Your task to perform on an android device: Open Google Chrome and click the shortcut for Amazon.com Image 0: 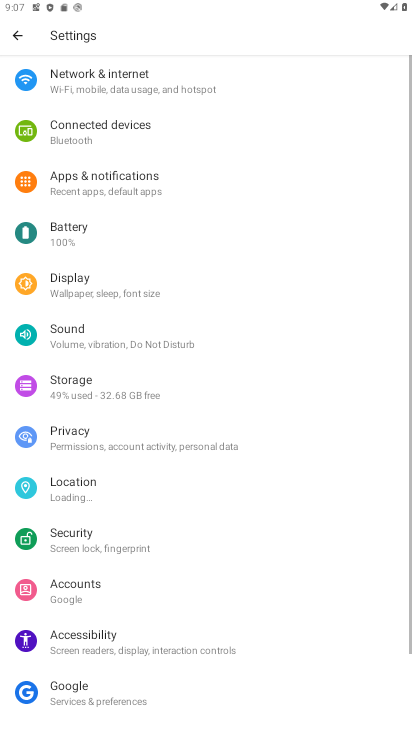
Step 0: press home button
Your task to perform on an android device: Open Google Chrome and click the shortcut for Amazon.com Image 1: 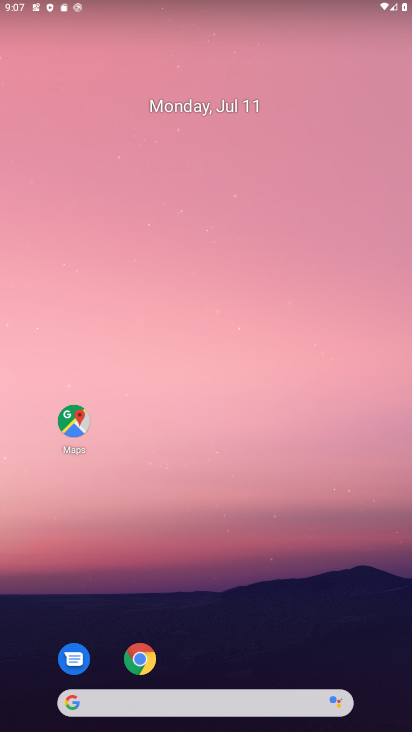
Step 1: click (139, 662)
Your task to perform on an android device: Open Google Chrome and click the shortcut for Amazon.com Image 2: 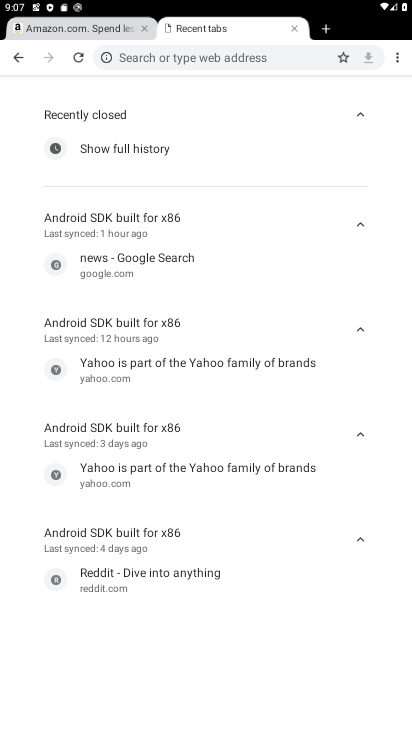
Step 2: click (400, 61)
Your task to perform on an android device: Open Google Chrome and click the shortcut for Amazon.com Image 3: 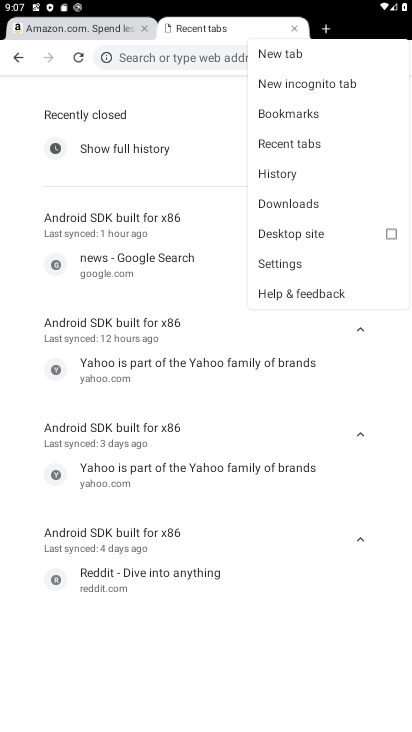
Step 3: click (292, 48)
Your task to perform on an android device: Open Google Chrome and click the shortcut for Amazon.com Image 4: 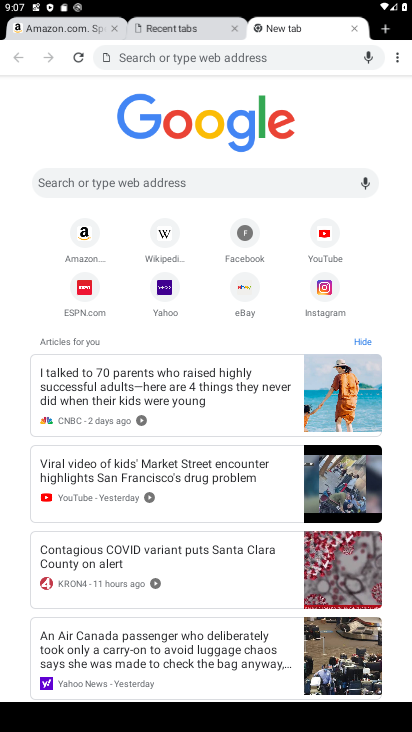
Step 4: click (84, 232)
Your task to perform on an android device: Open Google Chrome and click the shortcut for Amazon.com Image 5: 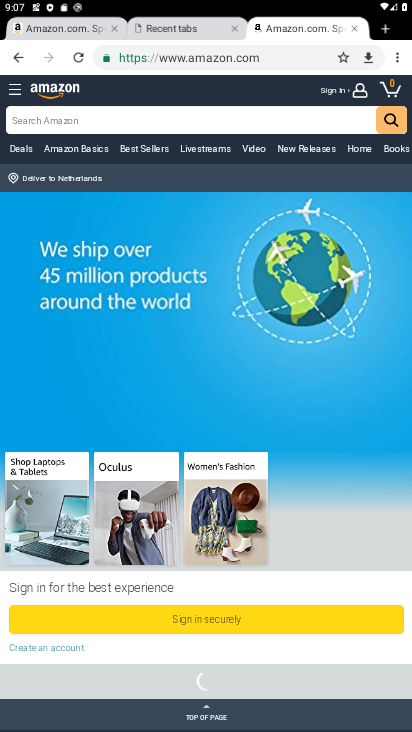
Step 5: task complete